Your task to perform on an android device: Go to wifi settings Image 0: 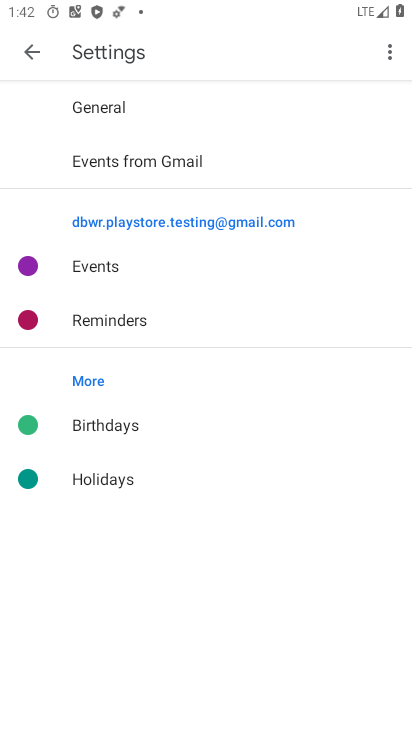
Step 0: press home button
Your task to perform on an android device: Go to wifi settings Image 1: 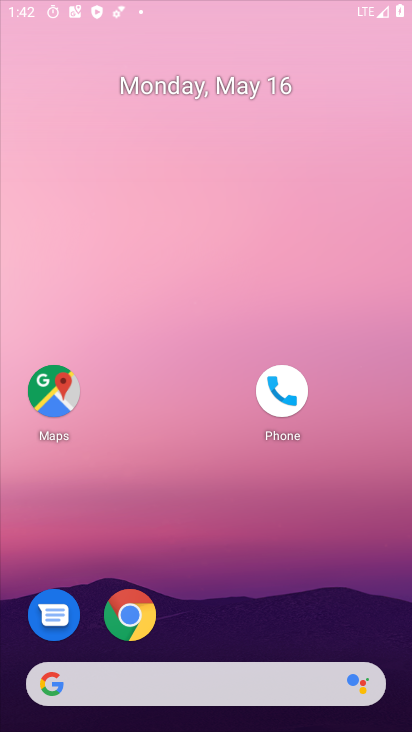
Step 1: drag from (180, 689) to (211, 64)
Your task to perform on an android device: Go to wifi settings Image 2: 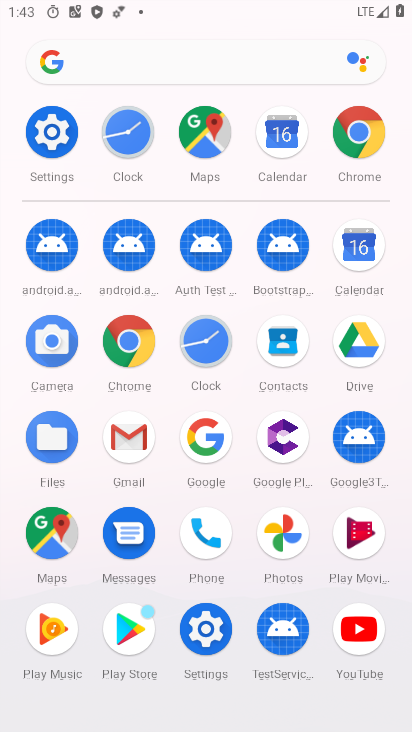
Step 2: drag from (157, 110) to (140, 147)
Your task to perform on an android device: Go to wifi settings Image 3: 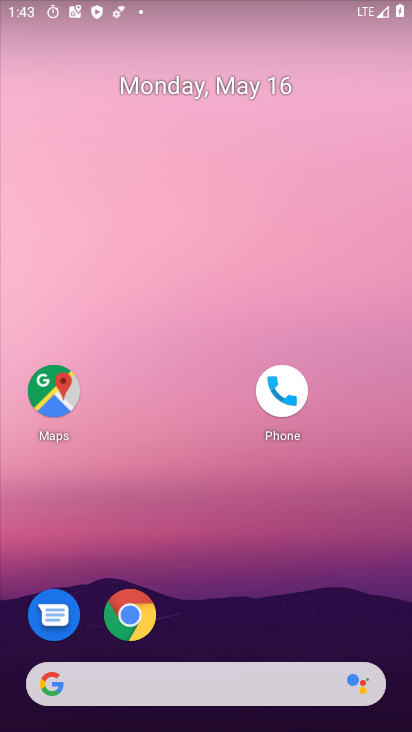
Step 3: drag from (371, 638) to (301, 226)
Your task to perform on an android device: Go to wifi settings Image 4: 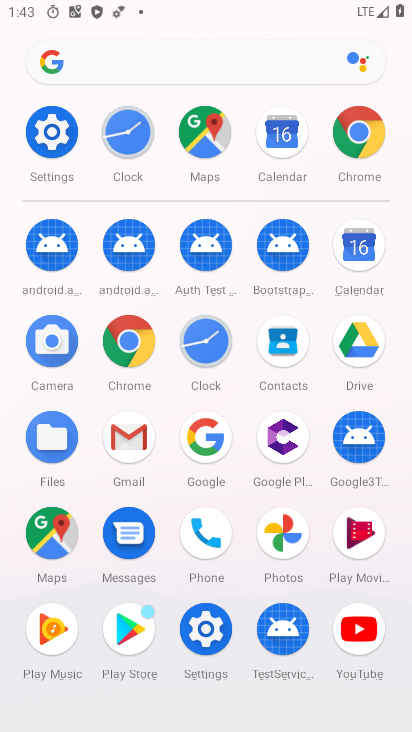
Step 4: click (50, 121)
Your task to perform on an android device: Go to wifi settings Image 5: 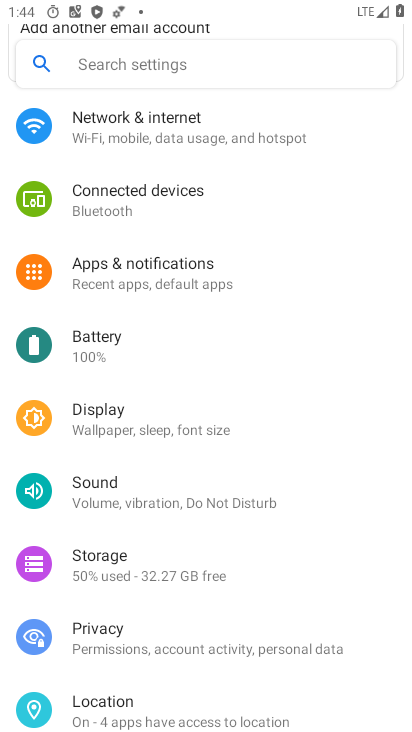
Step 5: drag from (183, 230) to (205, 659)
Your task to perform on an android device: Go to wifi settings Image 6: 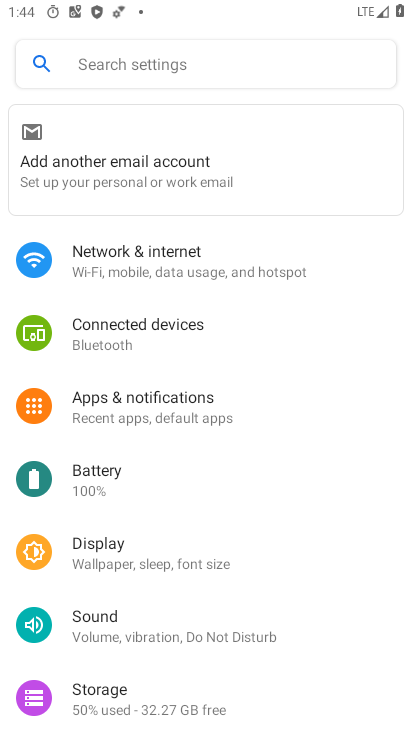
Step 6: click (170, 272)
Your task to perform on an android device: Go to wifi settings Image 7: 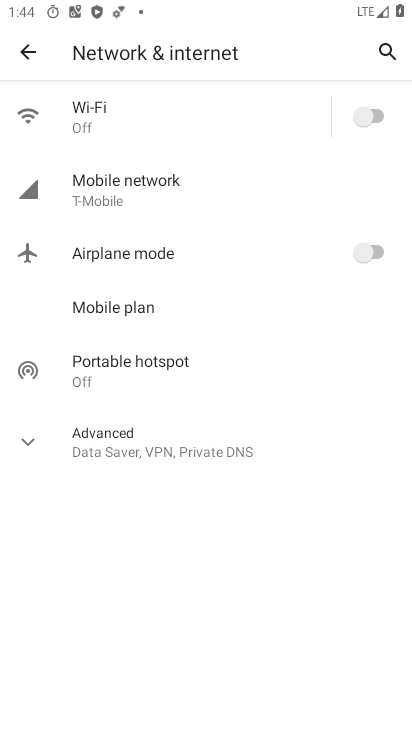
Step 7: task complete